Your task to perform on an android device: Search for pizza restaurants on Maps Image 0: 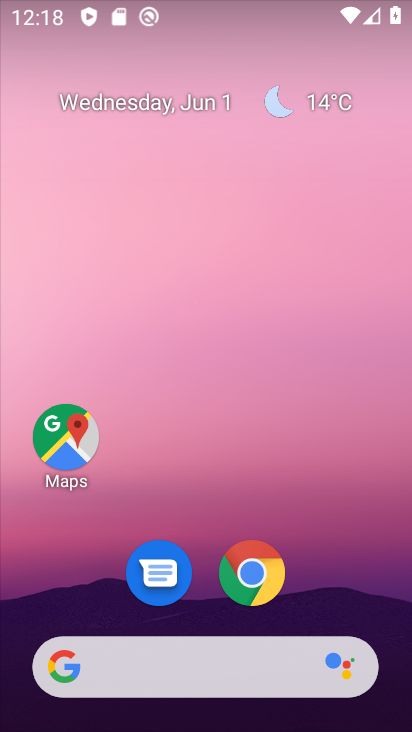
Step 0: click (92, 446)
Your task to perform on an android device: Search for pizza restaurants on Maps Image 1: 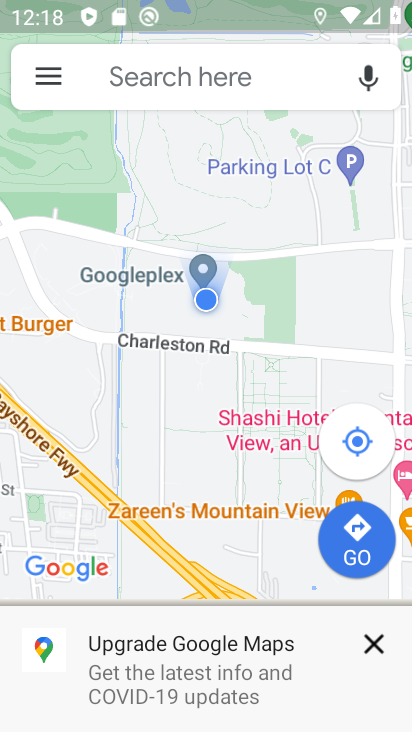
Step 1: click (218, 74)
Your task to perform on an android device: Search for pizza restaurants on Maps Image 2: 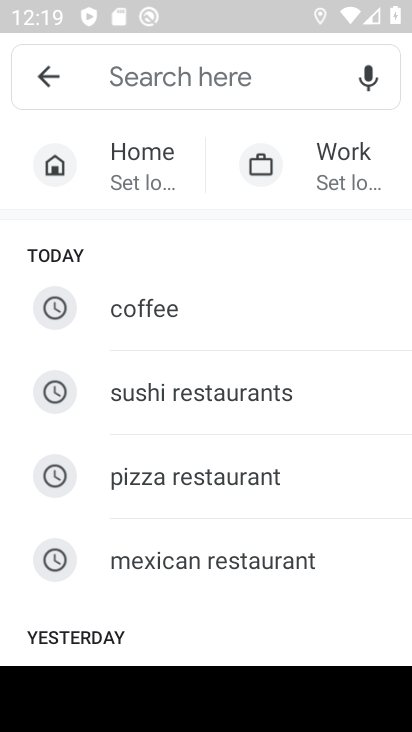
Step 2: type "Pizza restaurants"
Your task to perform on an android device: Search for pizza restaurants on Maps Image 3: 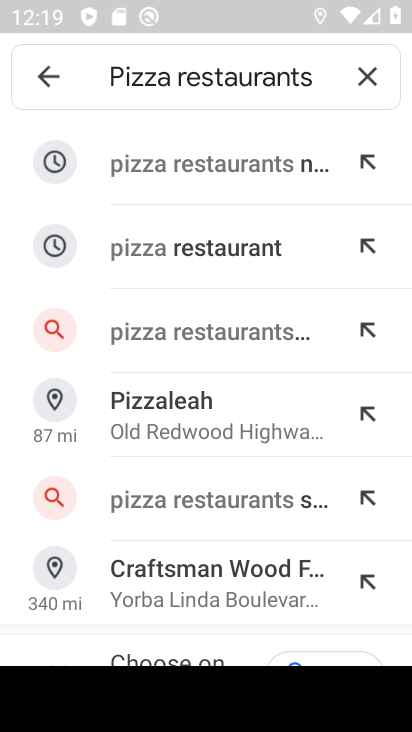
Step 3: click (215, 246)
Your task to perform on an android device: Search for pizza restaurants on Maps Image 4: 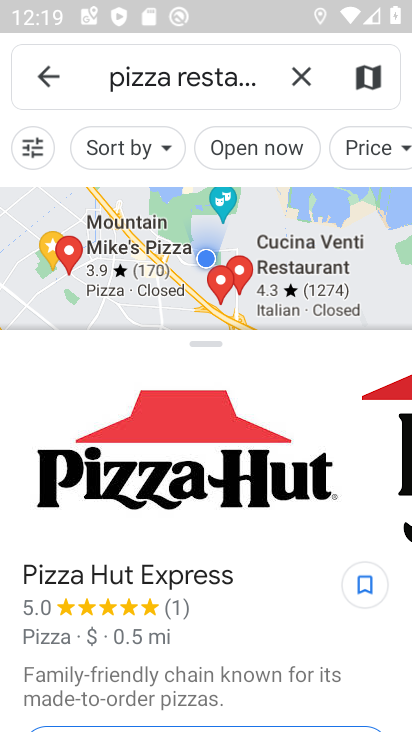
Step 4: task complete